Your task to perform on an android device: star an email in the gmail app Image 0: 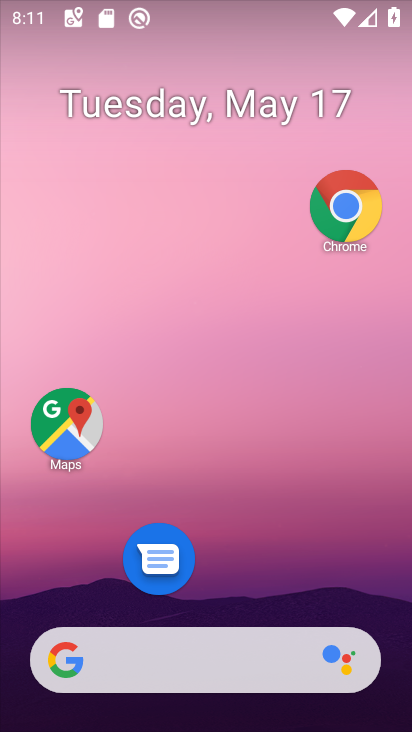
Step 0: drag from (251, 617) to (263, 46)
Your task to perform on an android device: star an email in the gmail app Image 1: 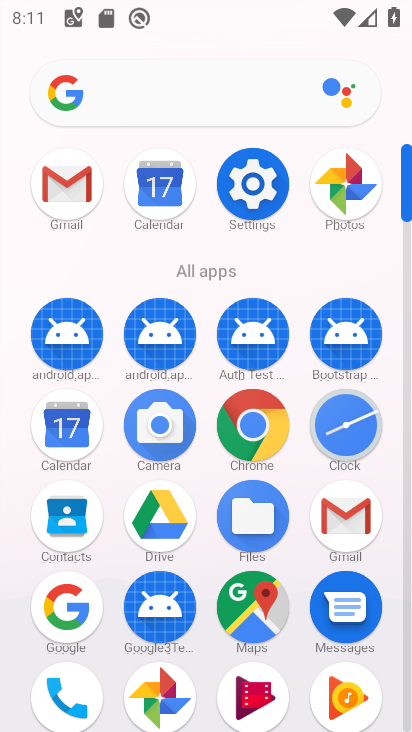
Step 1: click (224, 378)
Your task to perform on an android device: star an email in the gmail app Image 2: 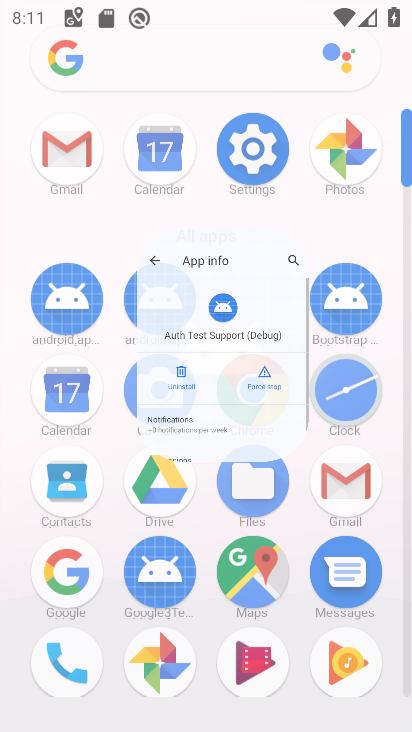
Step 2: click (346, 539)
Your task to perform on an android device: star an email in the gmail app Image 3: 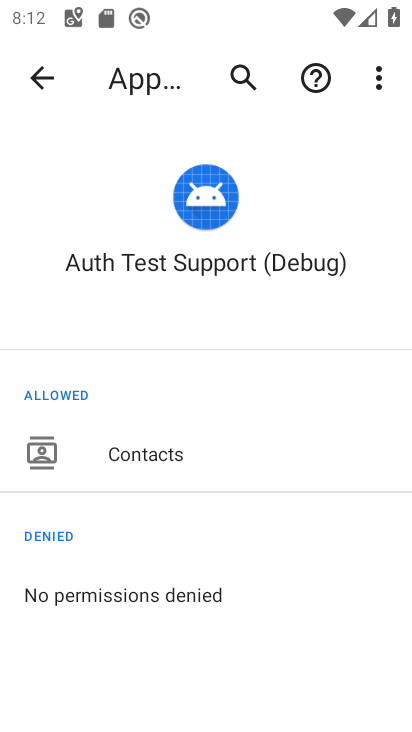
Step 3: click (26, 90)
Your task to perform on an android device: star an email in the gmail app Image 4: 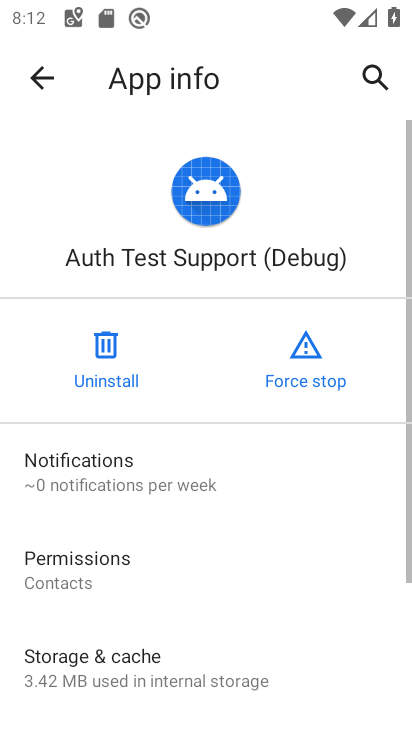
Step 4: press home button
Your task to perform on an android device: star an email in the gmail app Image 5: 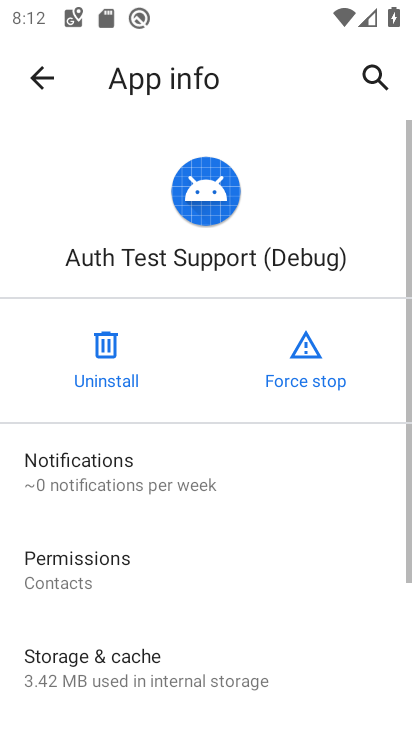
Step 5: press home button
Your task to perform on an android device: star an email in the gmail app Image 6: 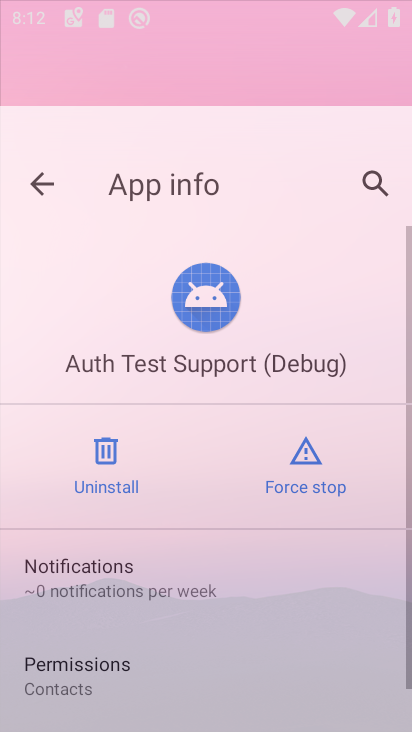
Step 6: click (291, 533)
Your task to perform on an android device: star an email in the gmail app Image 7: 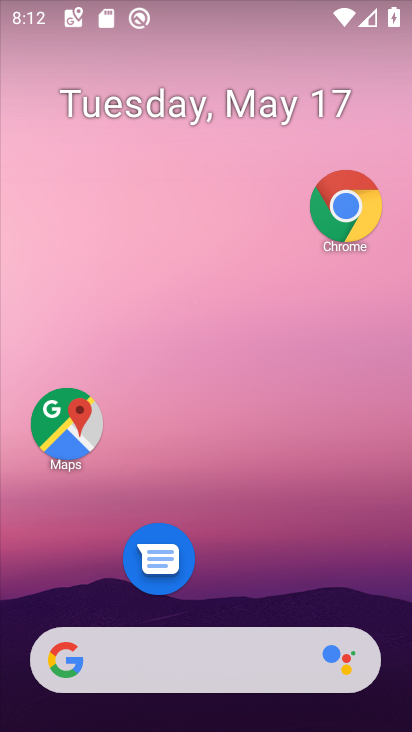
Step 7: drag from (274, 299) to (324, 58)
Your task to perform on an android device: star an email in the gmail app Image 8: 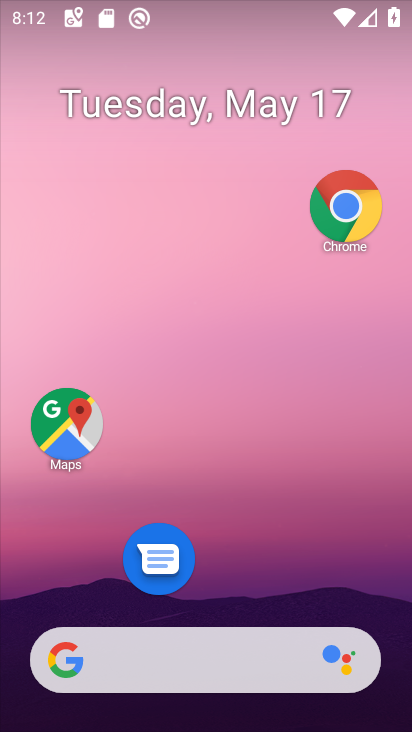
Step 8: drag from (235, 633) to (219, 87)
Your task to perform on an android device: star an email in the gmail app Image 9: 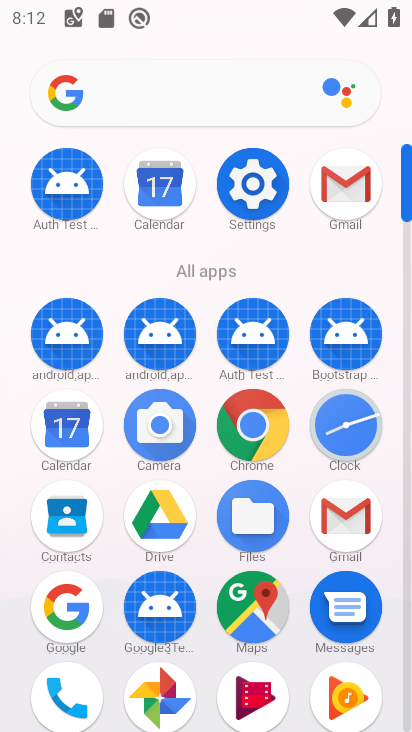
Step 9: click (336, 526)
Your task to perform on an android device: star an email in the gmail app Image 10: 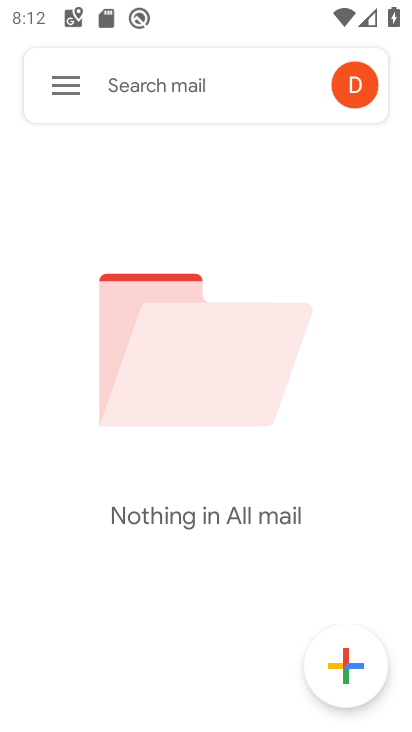
Step 10: click (69, 78)
Your task to perform on an android device: star an email in the gmail app Image 11: 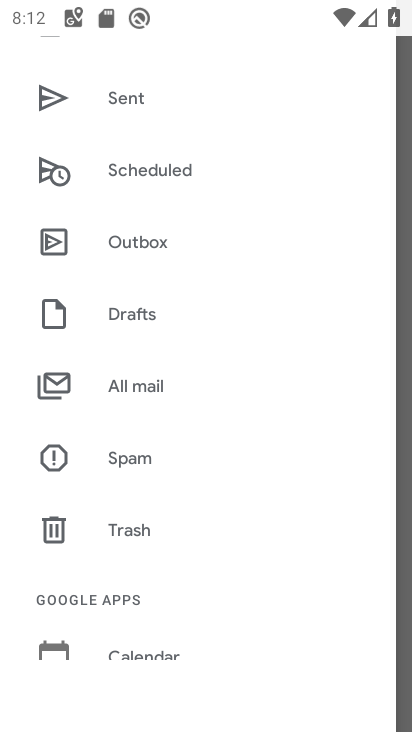
Step 11: task complete